Your task to perform on an android device: What's the weather going to be tomorrow? Image 0: 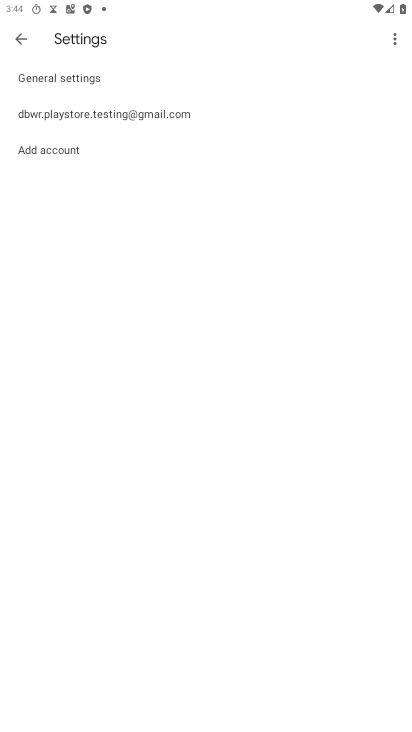
Step 0: press home button
Your task to perform on an android device: What's the weather going to be tomorrow? Image 1: 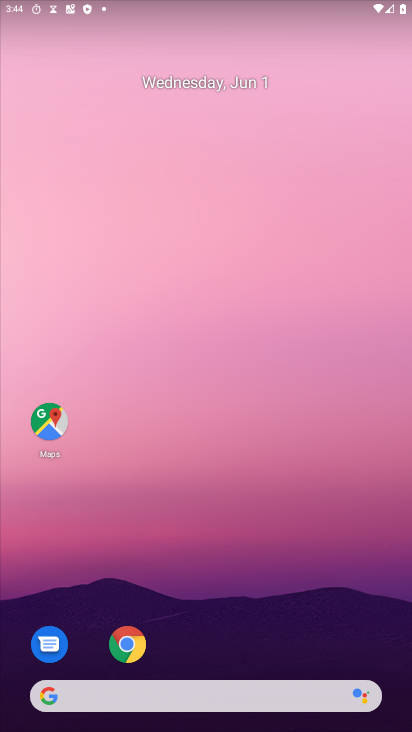
Step 1: click (220, 688)
Your task to perform on an android device: What's the weather going to be tomorrow? Image 2: 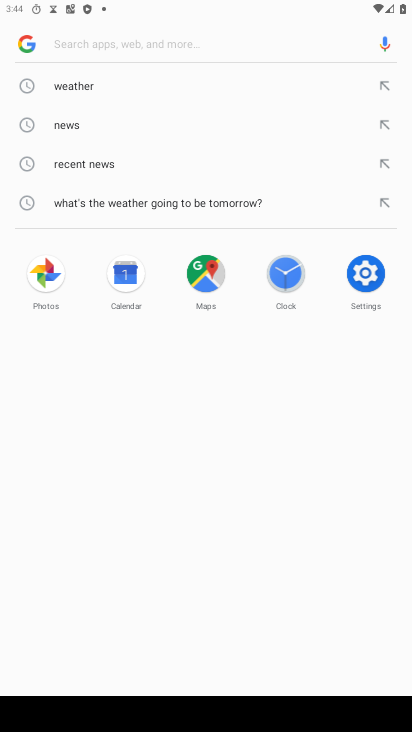
Step 2: click (164, 205)
Your task to perform on an android device: What's the weather going to be tomorrow? Image 3: 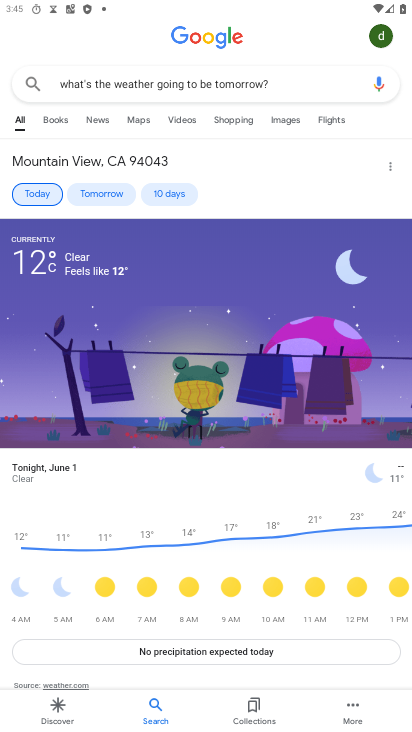
Step 3: task complete